Your task to perform on an android device: Search for "rayovac triple a" on amazon, select the first entry, add it to the cart, then select checkout. Image 0: 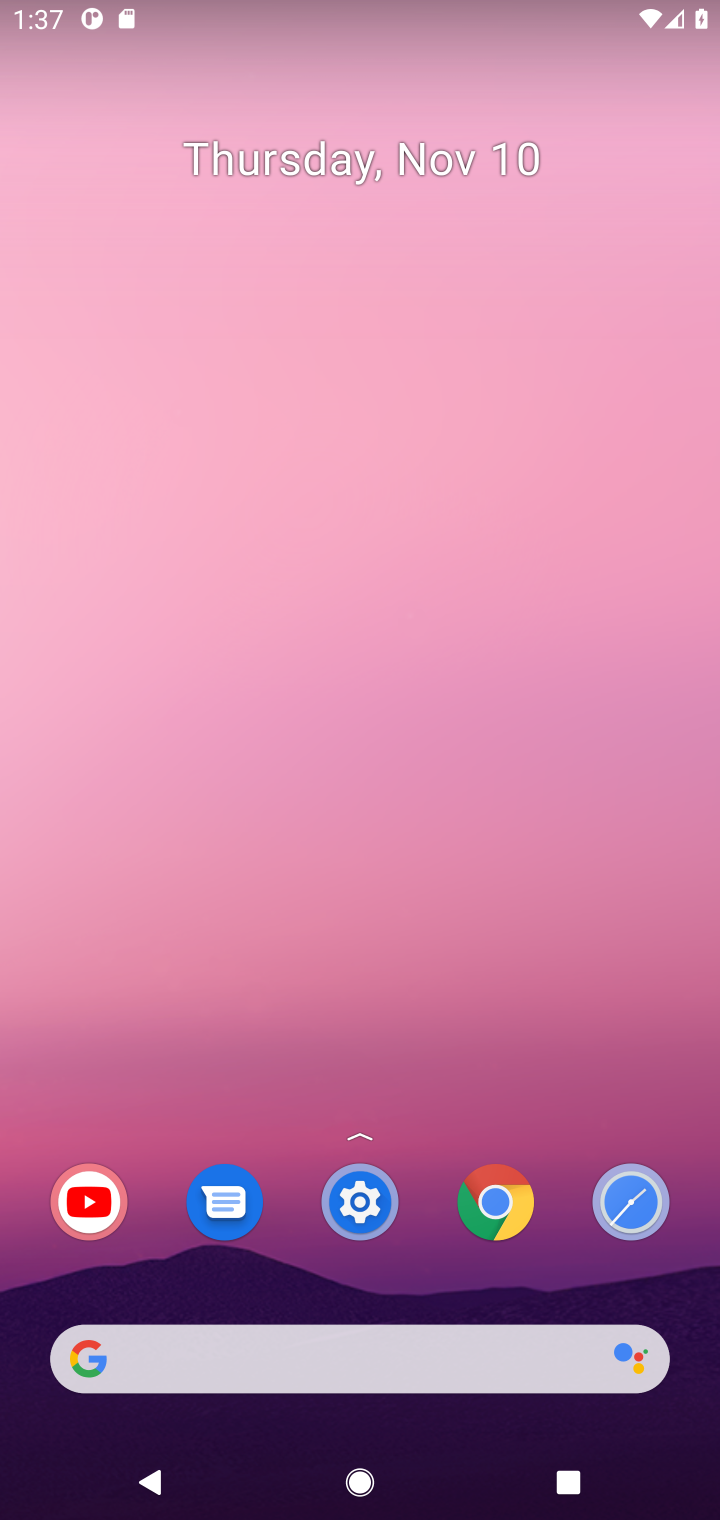
Step 0: click (497, 1211)
Your task to perform on an android device: Search for "rayovac triple a" on amazon, select the first entry, add it to the cart, then select checkout. Image 1: 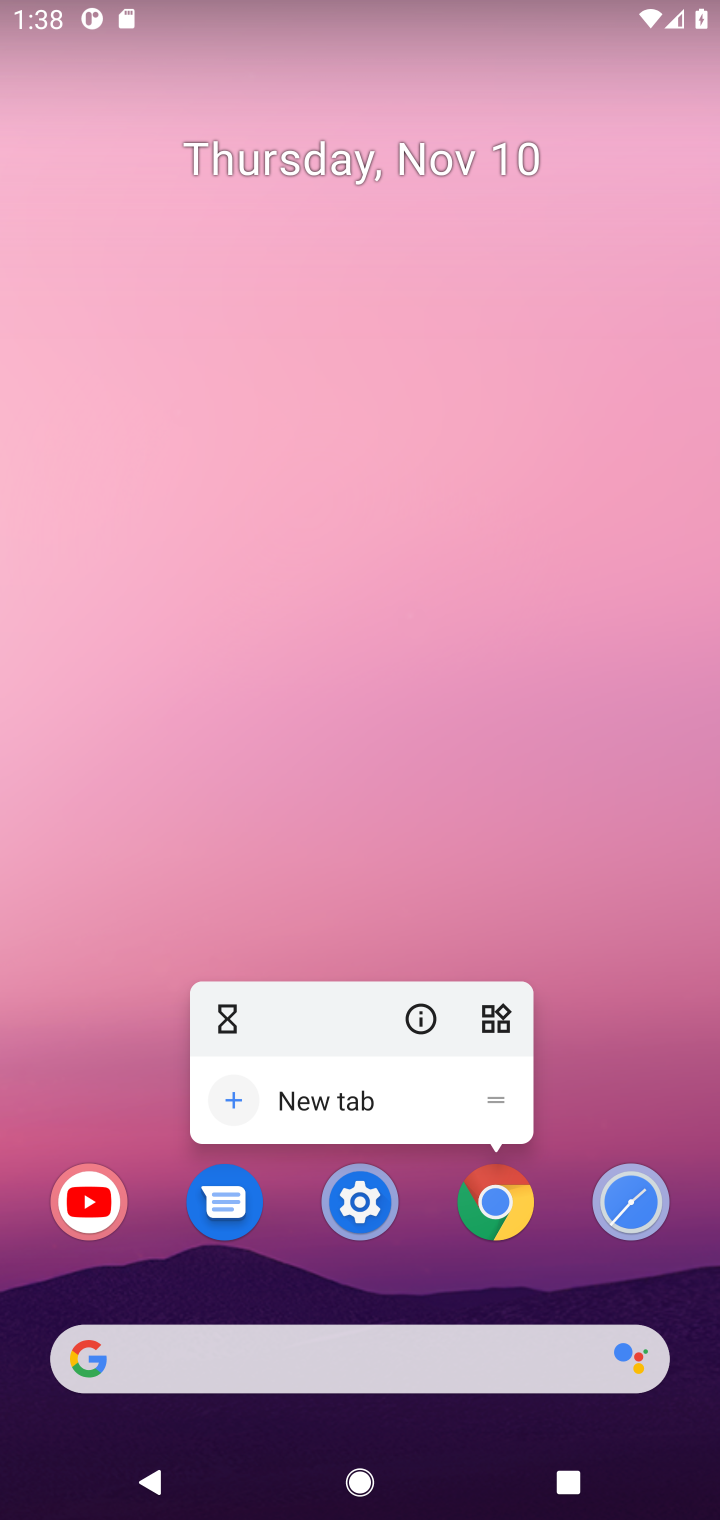
Step 1: click (490, 1228)
Your task to perform on an android device: Search for "rayovac triple a" on amazon, select the first entry, add it to the cart, then select checkout. Image 2: 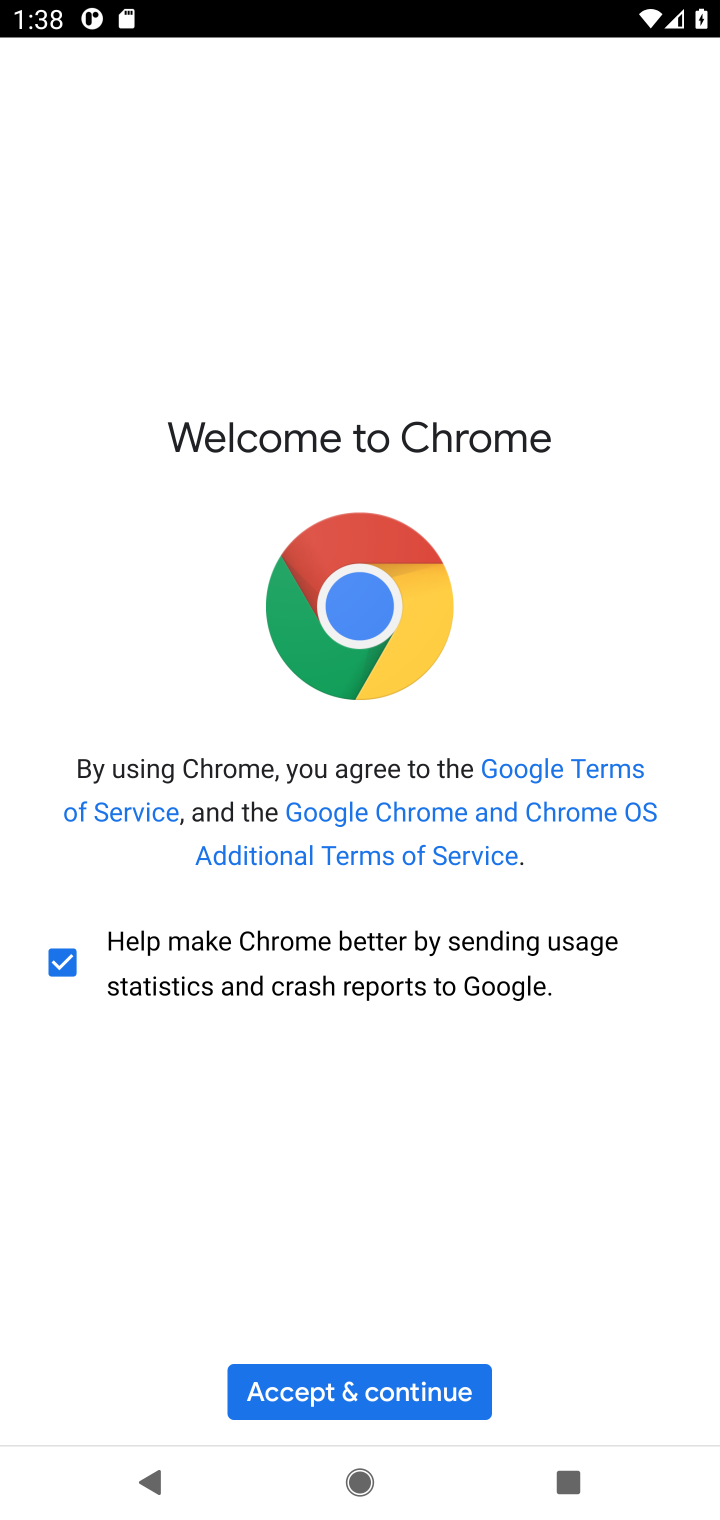
Step 2: click (430, 1377)
Your task to perform on an android device: Search for "rayovac triple a" on amazon, select the first entry, add it to the cart, then select checkout. Image 3: 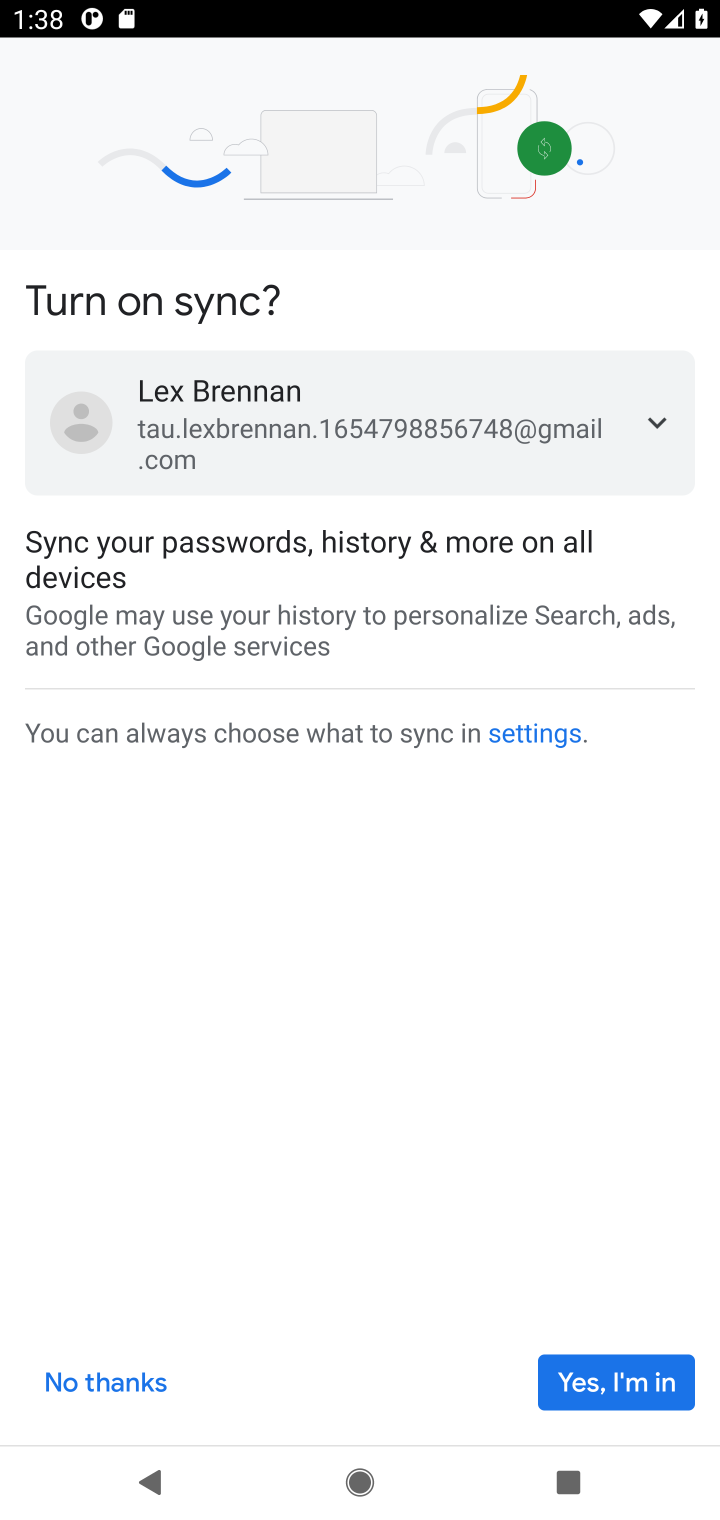
Step 3: click (603, 1377)
Your task to perform on an android device: Search for "rayovac triple a" on amazon, select the first entry, add it to the cart, then select checkout. Image 4: 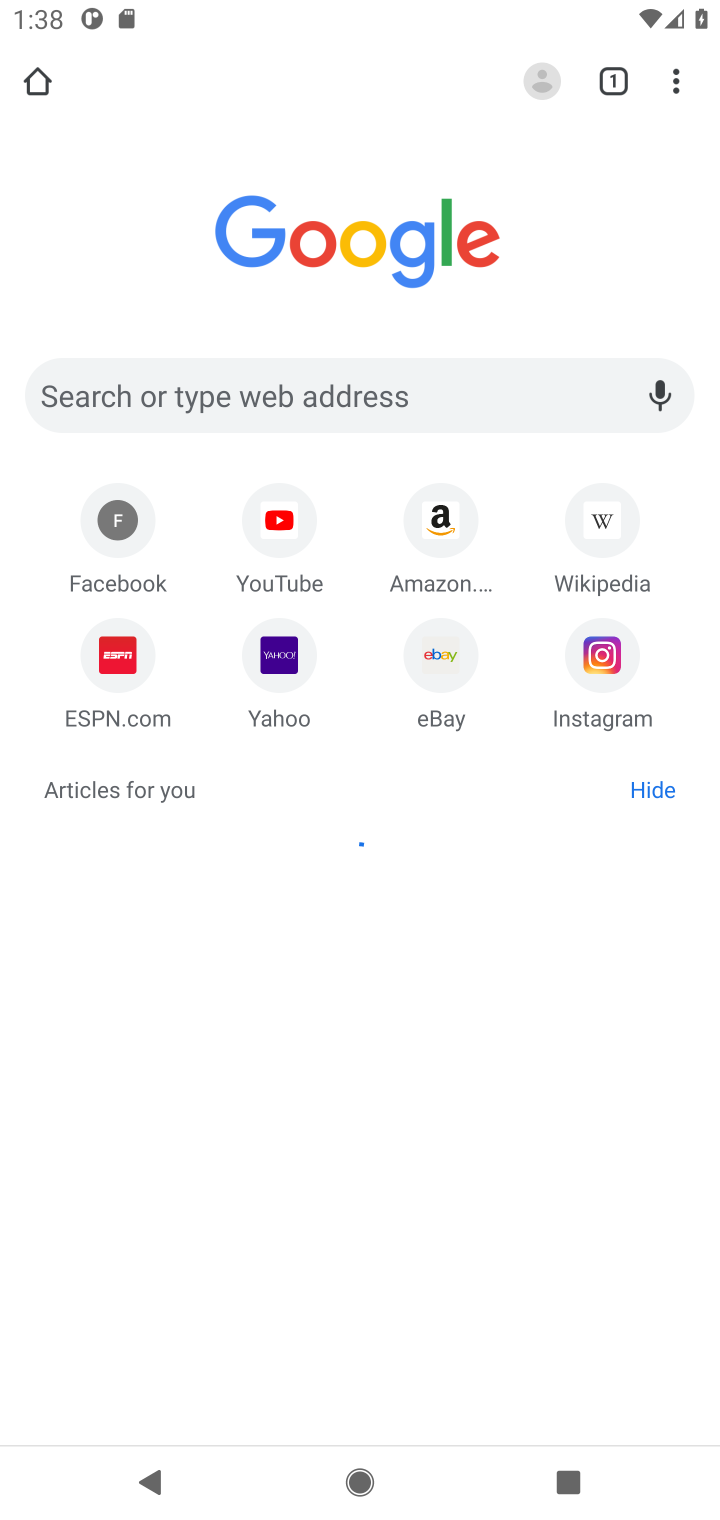
Step 4: click (342, 391)
Your task to perform on an android device: Search for "rayovac triple a" on amazon, select the first entry, add it to the cart, then select checkout. Image 5: 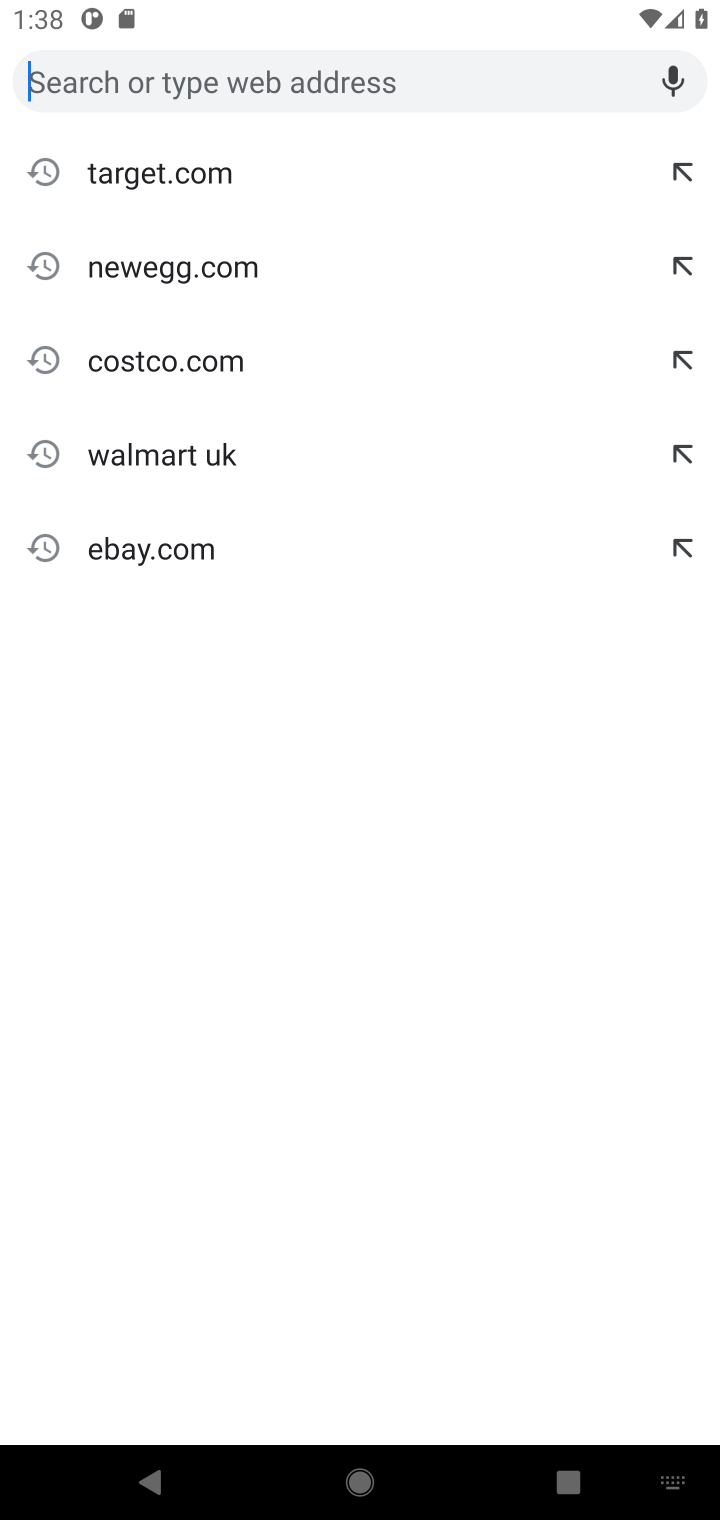
Step 5: type "amazon"
Your task to perform on an android device: Search for "rayovac triple a" on amazon, select the first entry, add it to the cart, then select checkout. Image 6: 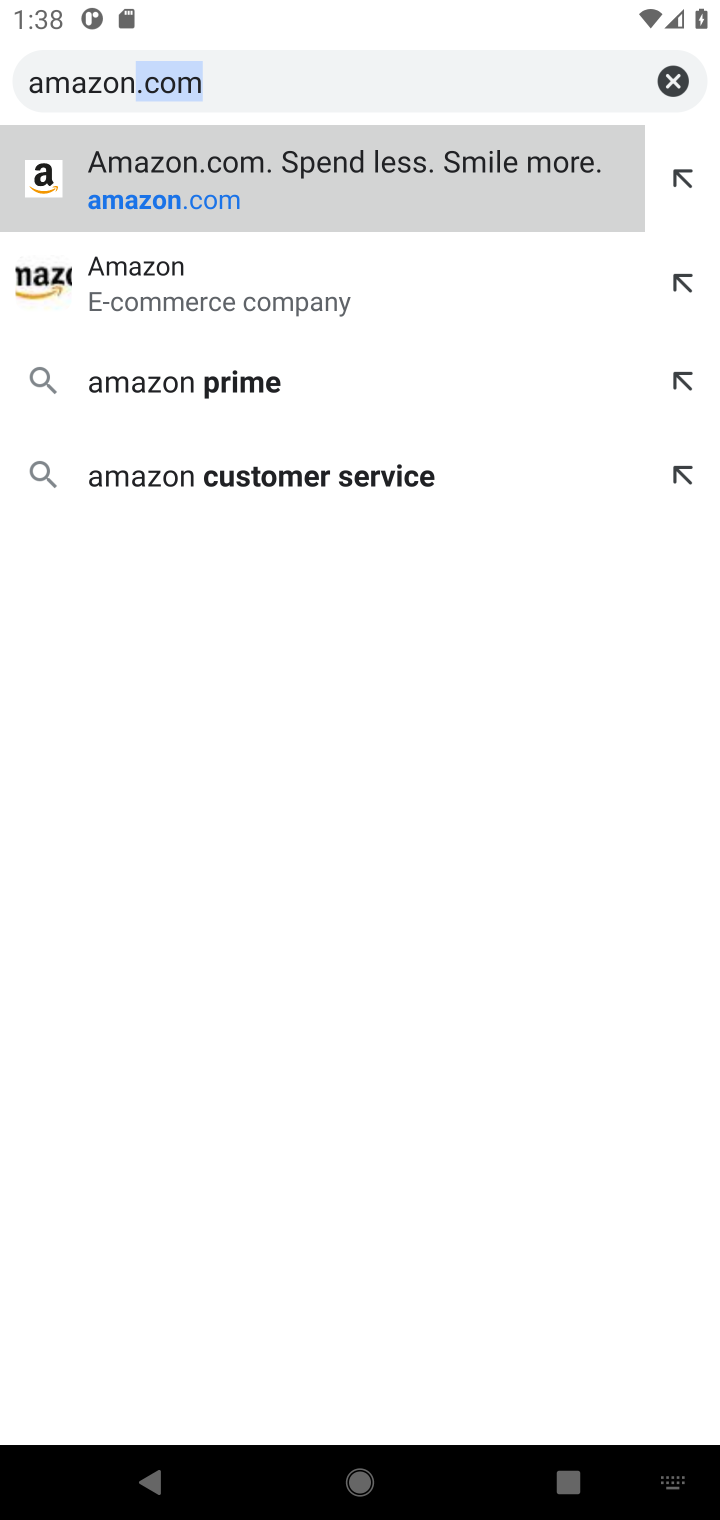
Step 6: press enter
Your task to perform on an android device: Search for "rayovac triple a" on amazon, select the first entry, add it to the cart, then select checkout. Image 7: 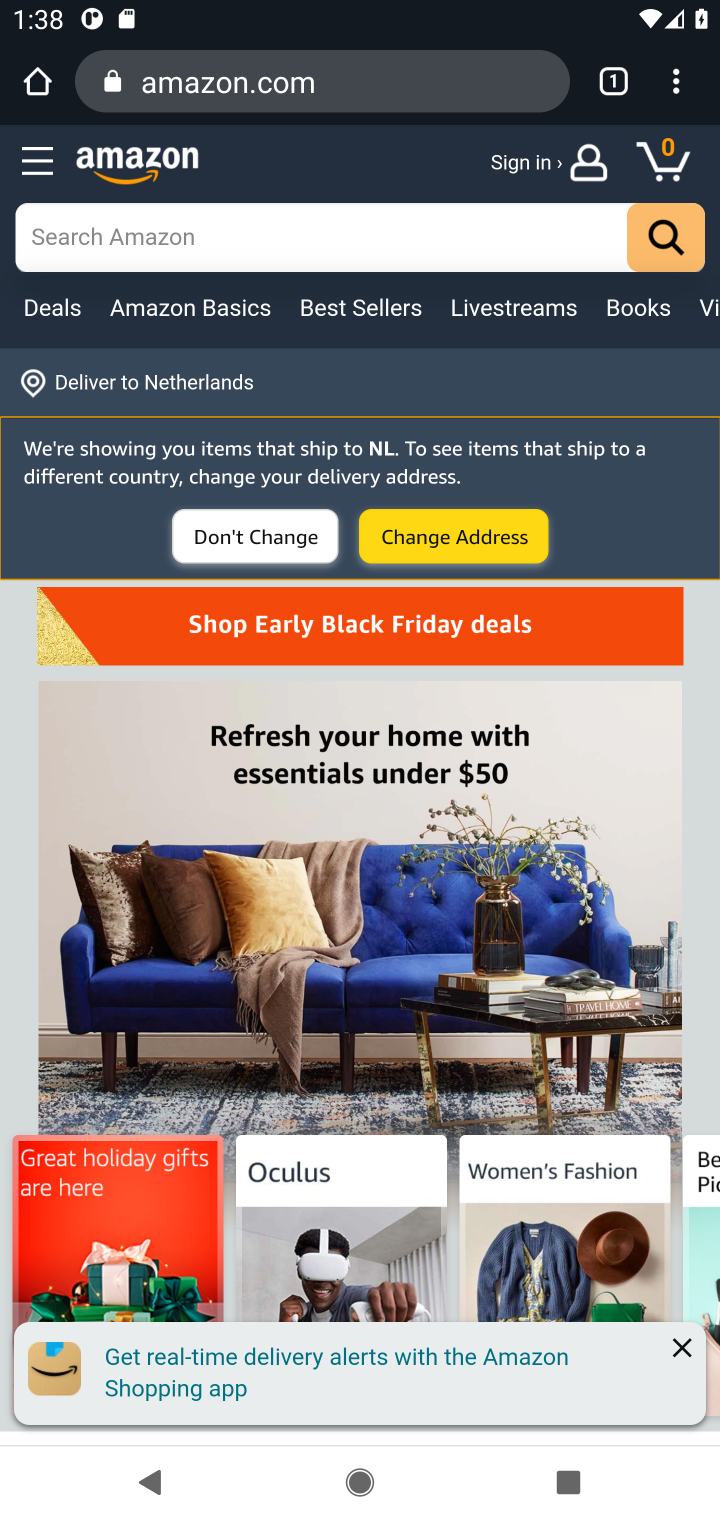
Step 7: click (186, 233)
Your task to perform on an android device: Search for "rayovac triple a" on amazon, select the first entry, add it to the cart, then select checkout. Image 8: 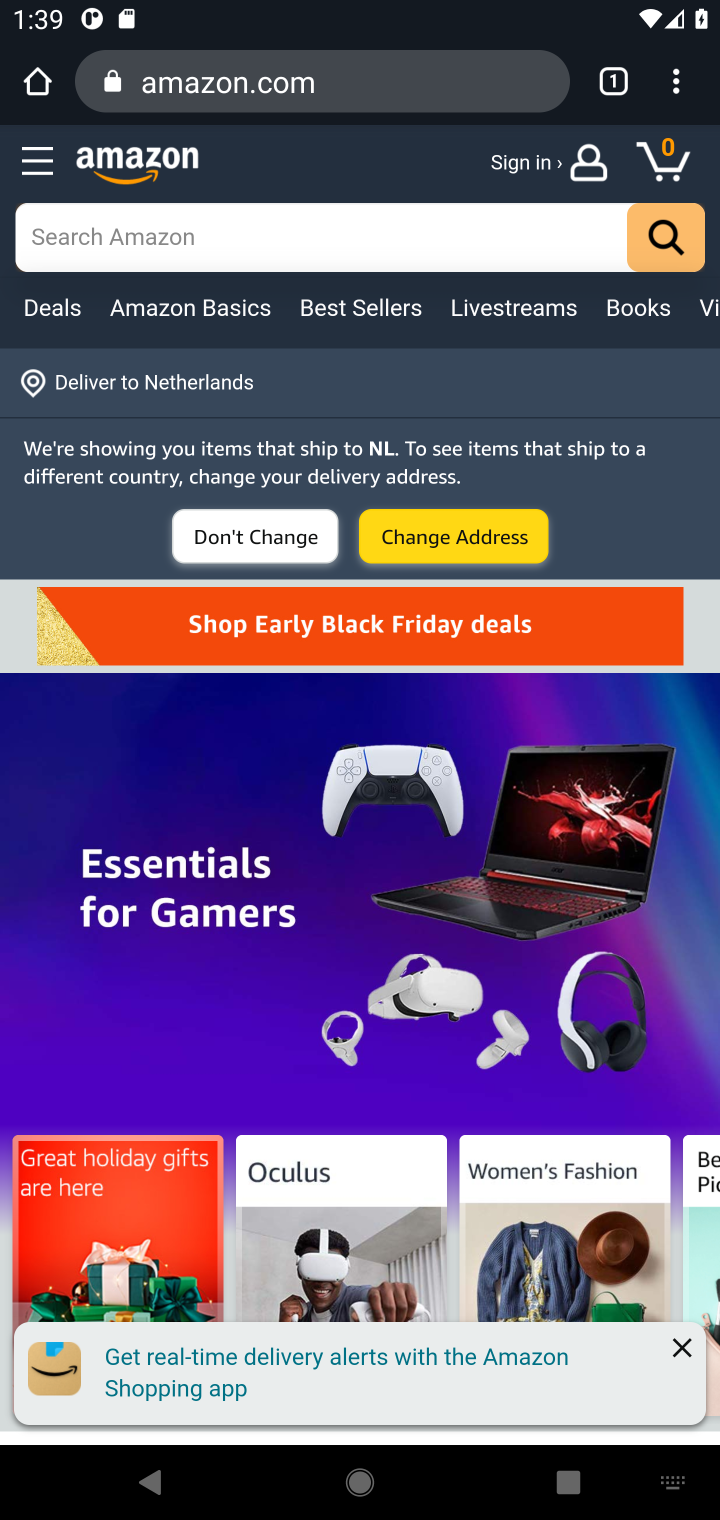
Step 8: type "rayovac triple a"
Your task to perform on an android device: Search for "rayovac triple a" on amazon, select the first entry, add it to the cart, then select checkout. Image 9: 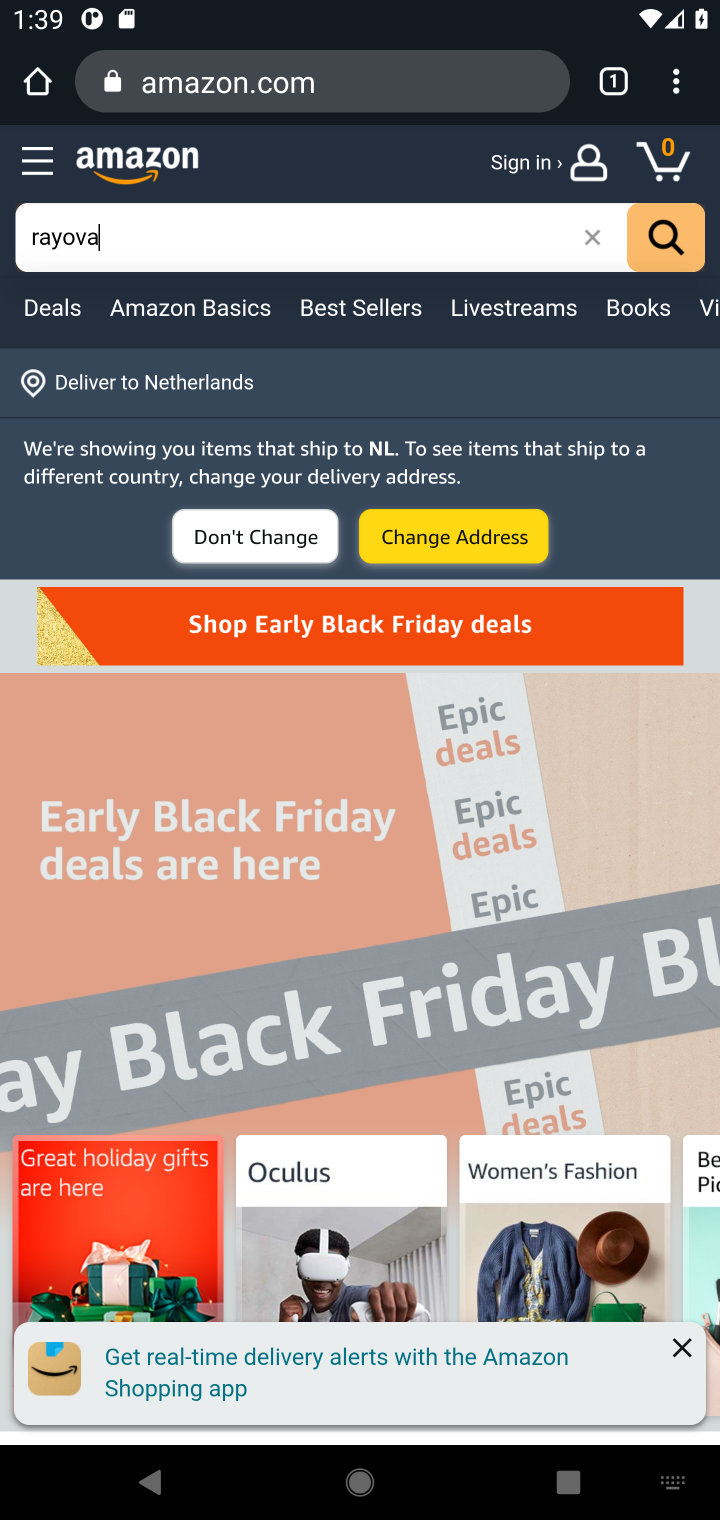
Step 9: press enter
Your task to perform on an android device: Search for "rayovac triple a" on amazon, select the first entry, add it to the cart, then select checkout. Image 10: 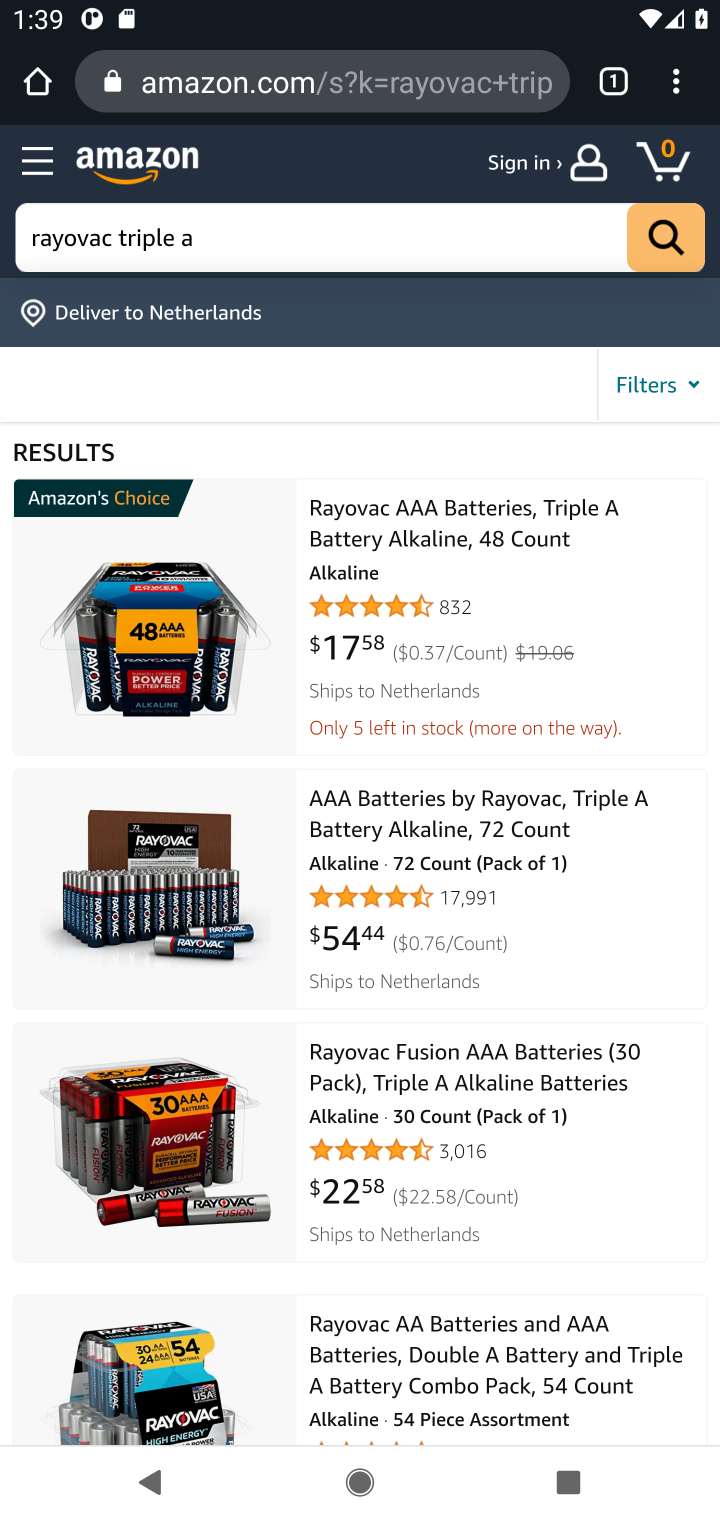
Step 10: click (418, 552)
Your task to perform on an android device: Search for "rayovac triple a" on amazon, select the first entry, add it to the cart, then select checkout. Image 11: 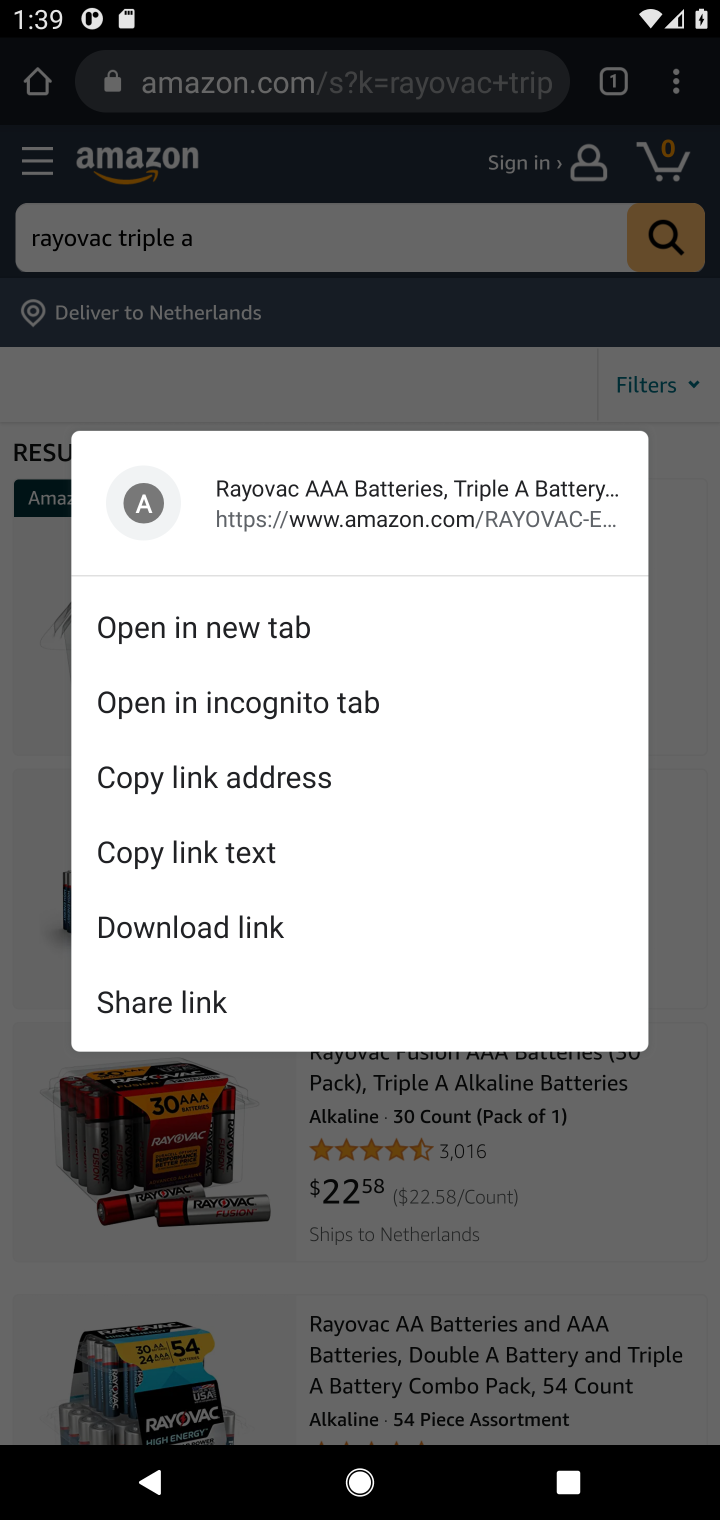
Step 11: click (694, 617)
Your task to perform on an android device: Search for "rayovac triple a" on amazon, select the first entry, add it to the cart, then select checkout. Image 12: 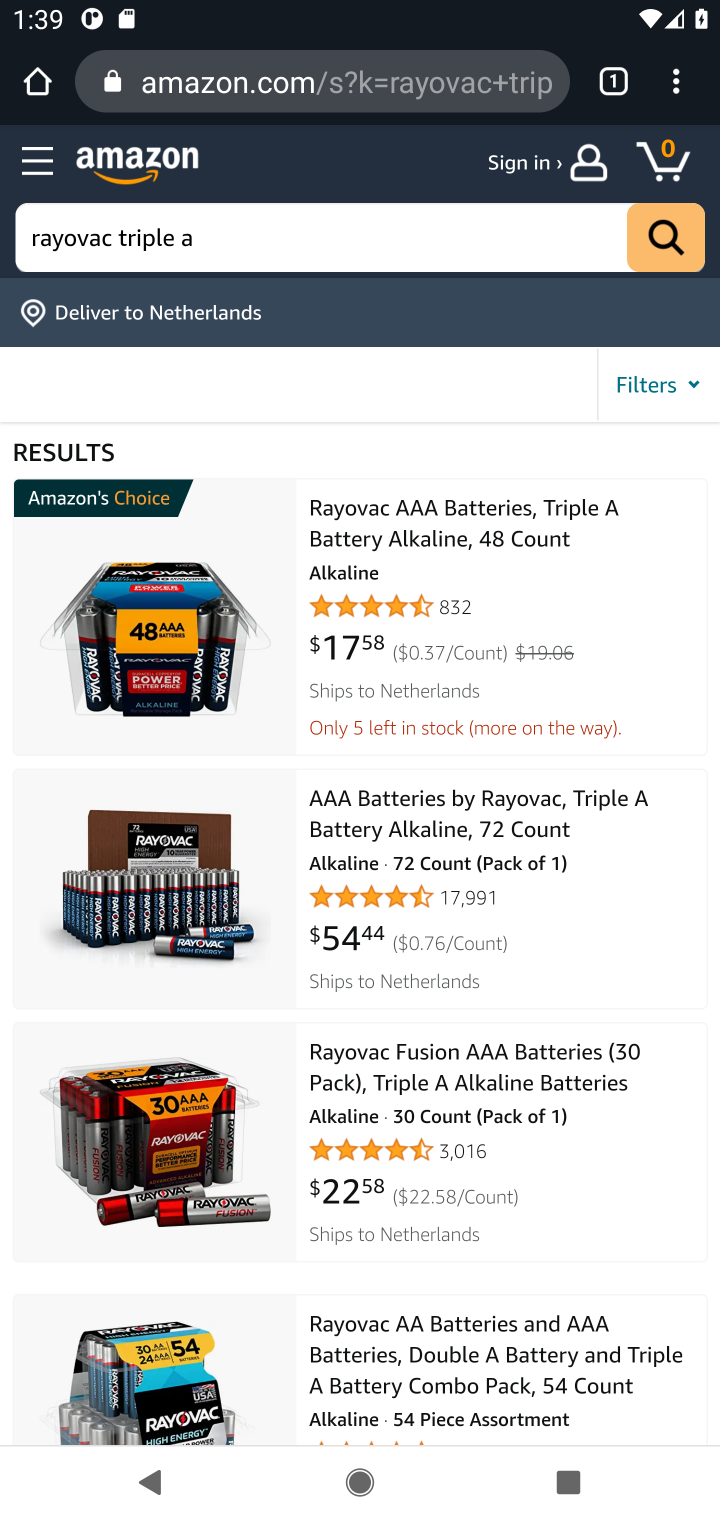
Step 12: click (389, 530)
Your task to perform on an android device: Search for "rayovac triple a" on amazon, select the first entry, add it to the cart, then select checkout. Image 13: 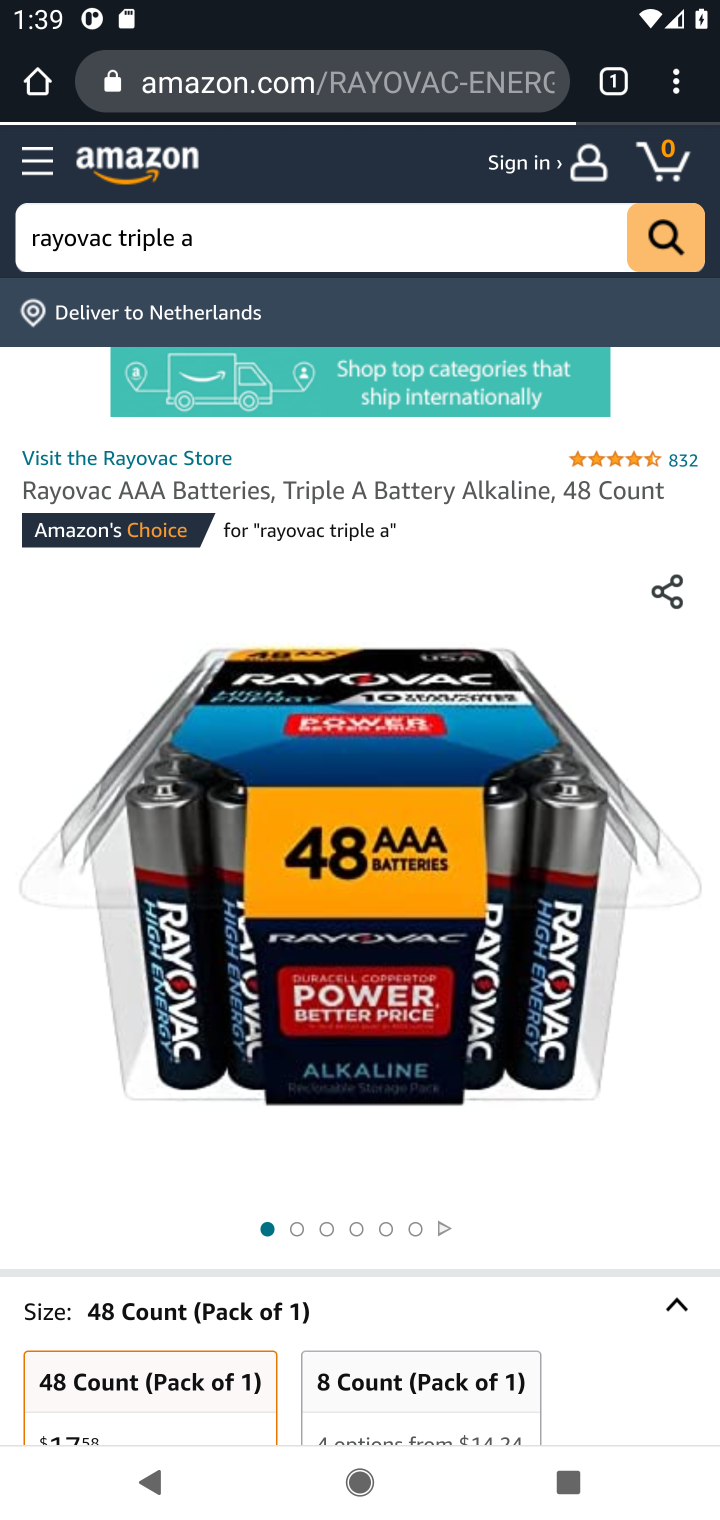
Step 13: drag from (514, 1049) to (694, 591)
Your task to perform on an android device: Search for "rayovac triple a" on amazon, select the first entry, add it to the cart, then select checkout. Image 14: 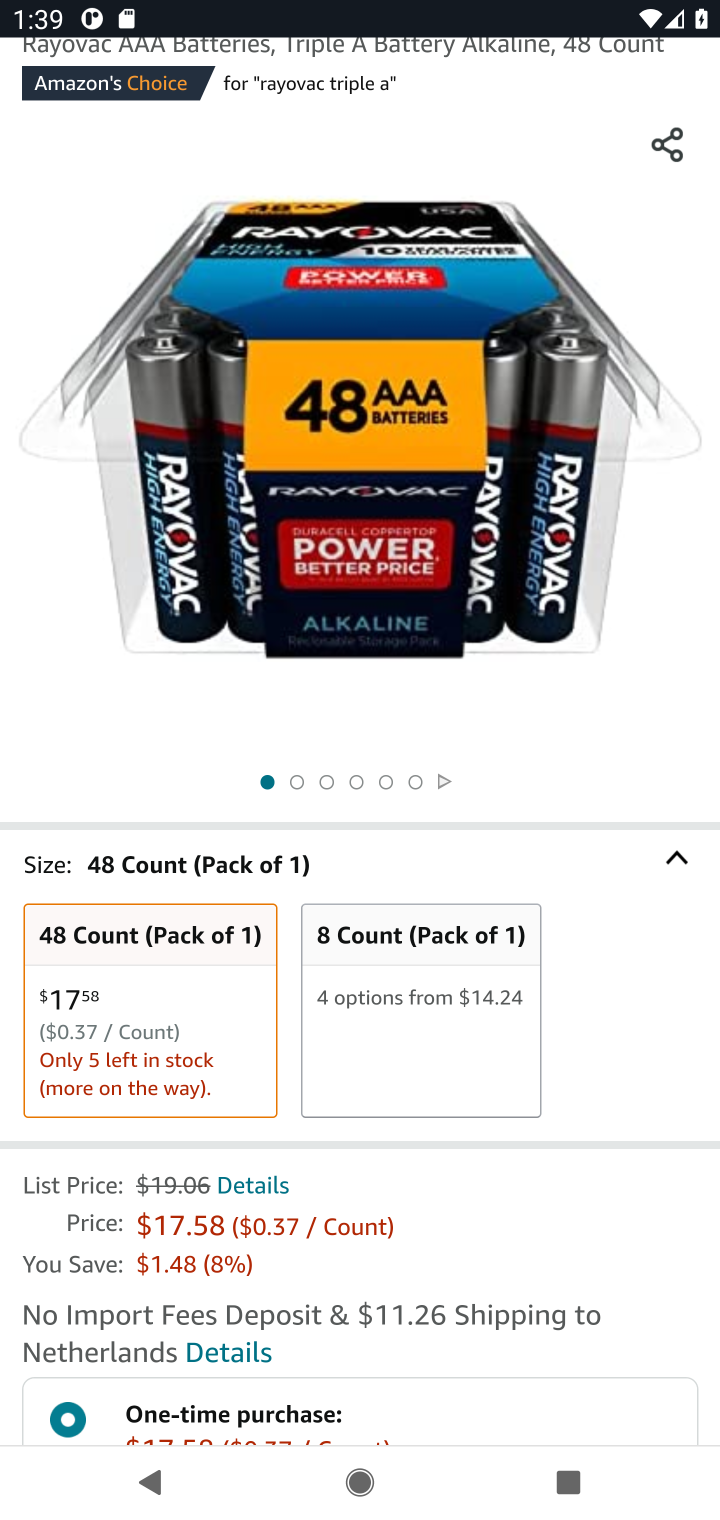
Step 14: drag from (402, 1271) to (640, 547)
Your task to perform on an android device: Search for "rayovac triple a" on amazon, select the first entry, add it to the cart, then select checkout. Image 15: 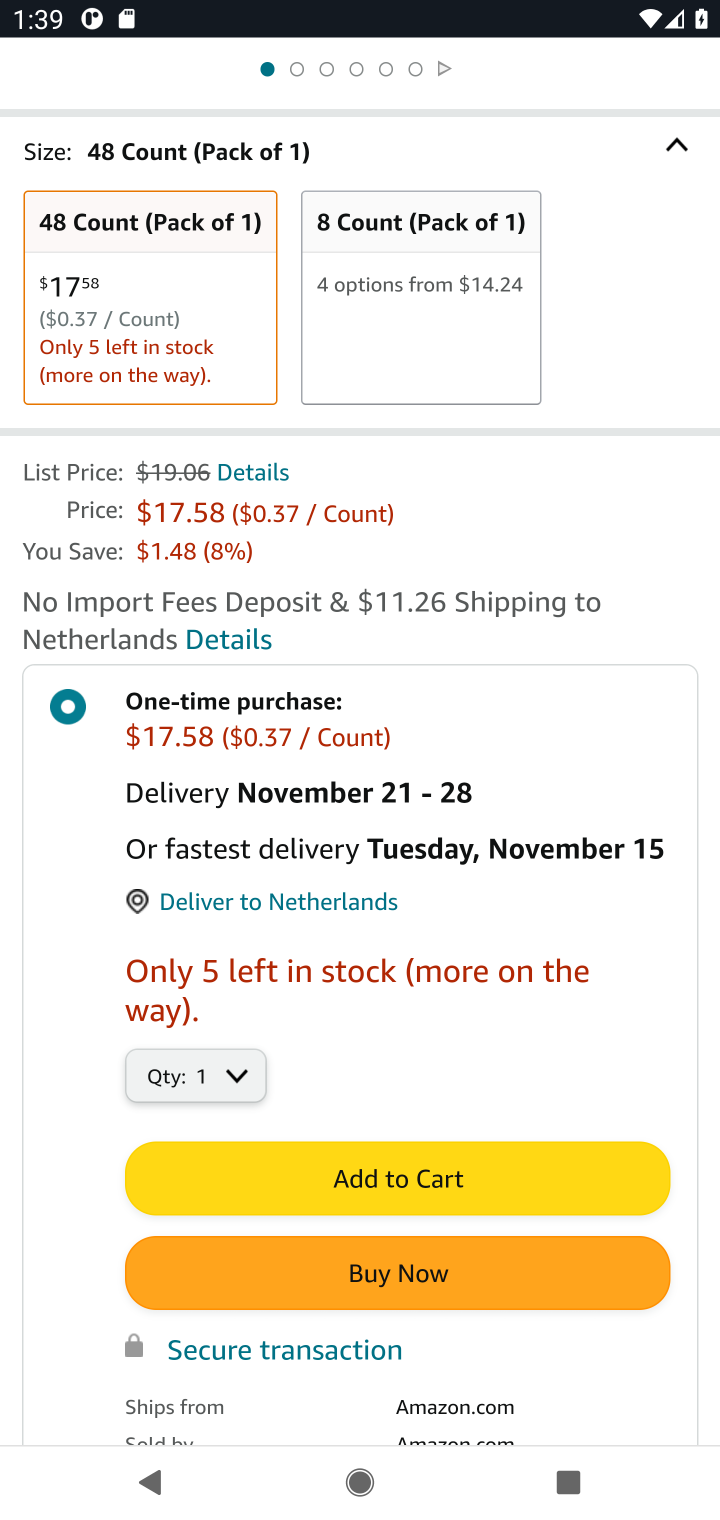
Step 15: click (380, 1176)
Your task to perform on an android device: Search for "rayovac triple a" on amazon, select the first entry, add it to the cart, then select checkout. Image 16: 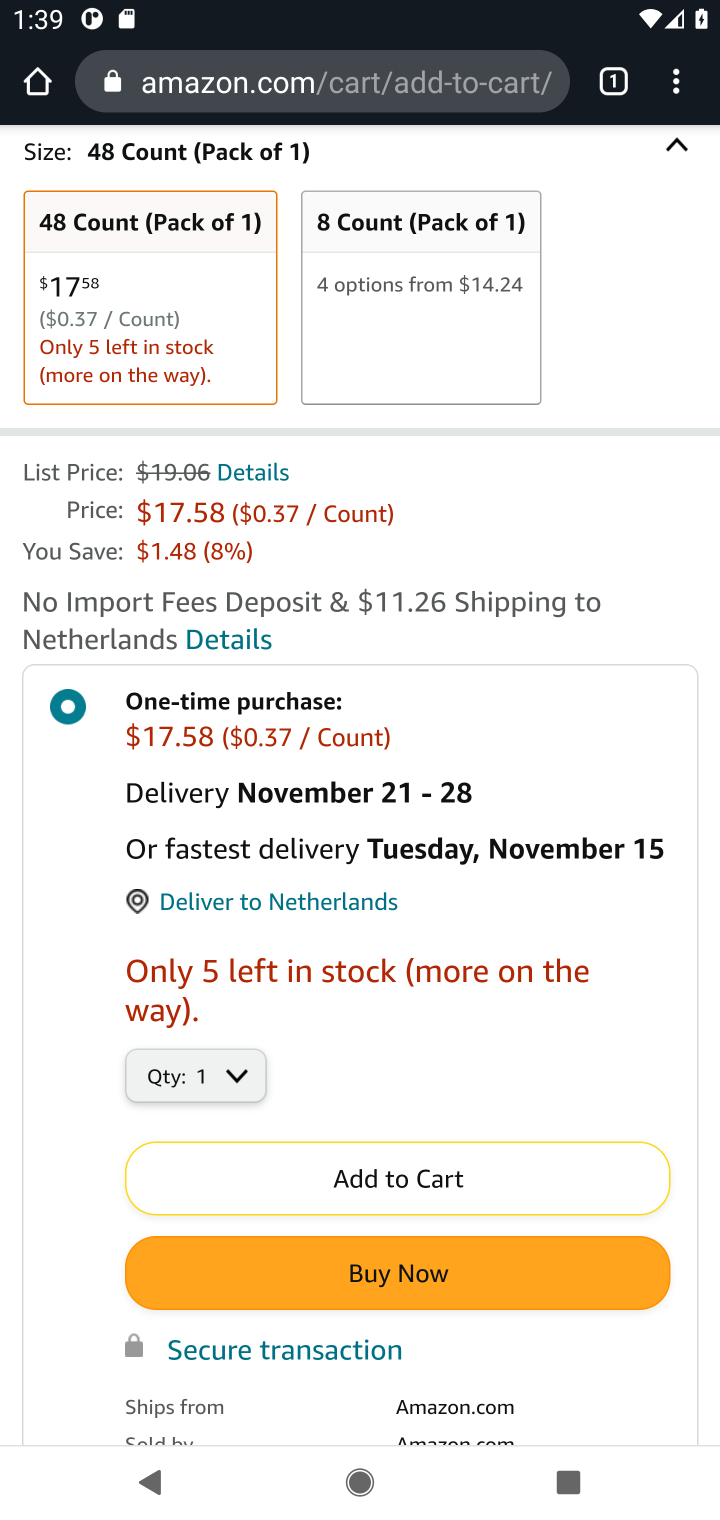
Step 16: click (422, 1173)
Your task to perform on an android device: Search for "rayovac triple a" on amazon, select the first entry, add it to the cart, then select checkout. Image 17: 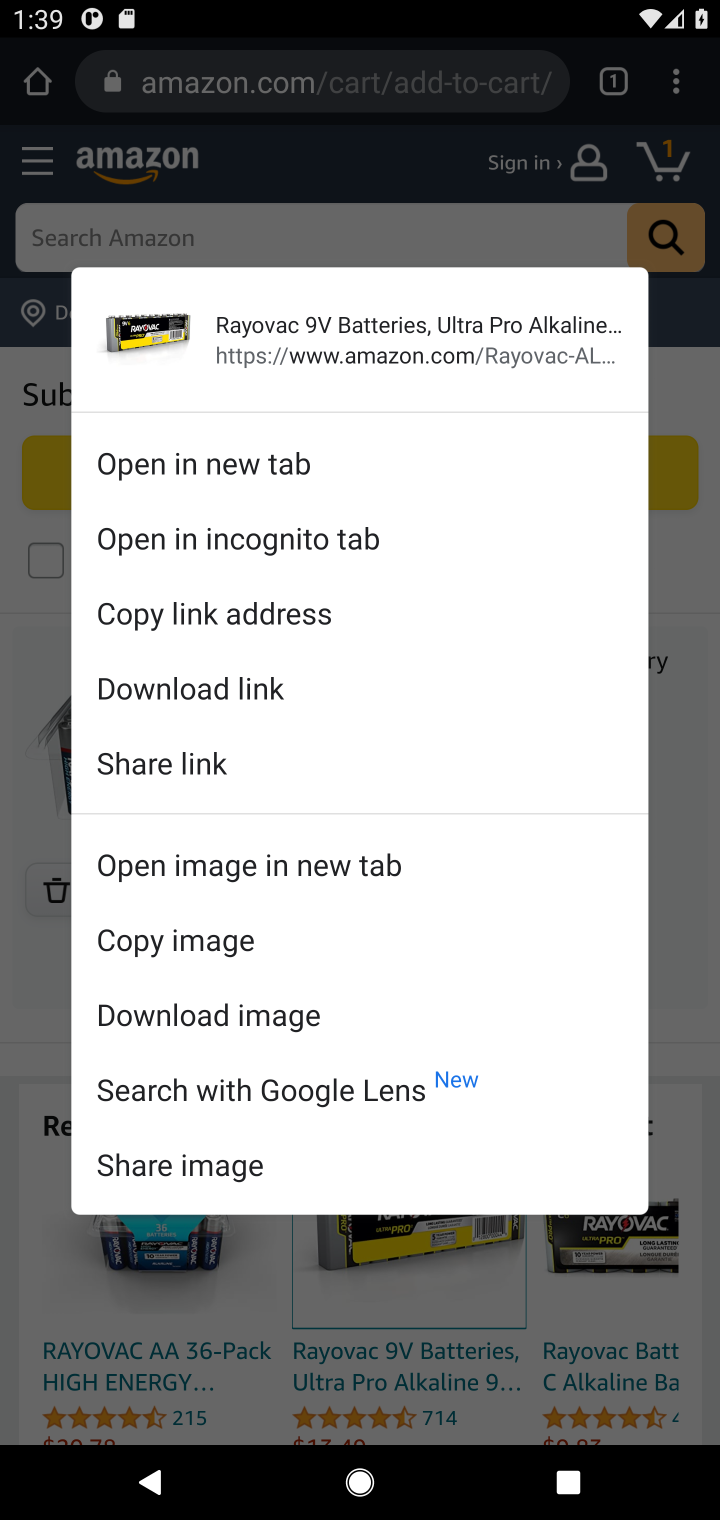
Step 17: click (666, 157)
Your task to perform on an android device: Search for "rayovac triple a" on amazon, select the first entry, add it to the cart, then select checkout. Image 18: 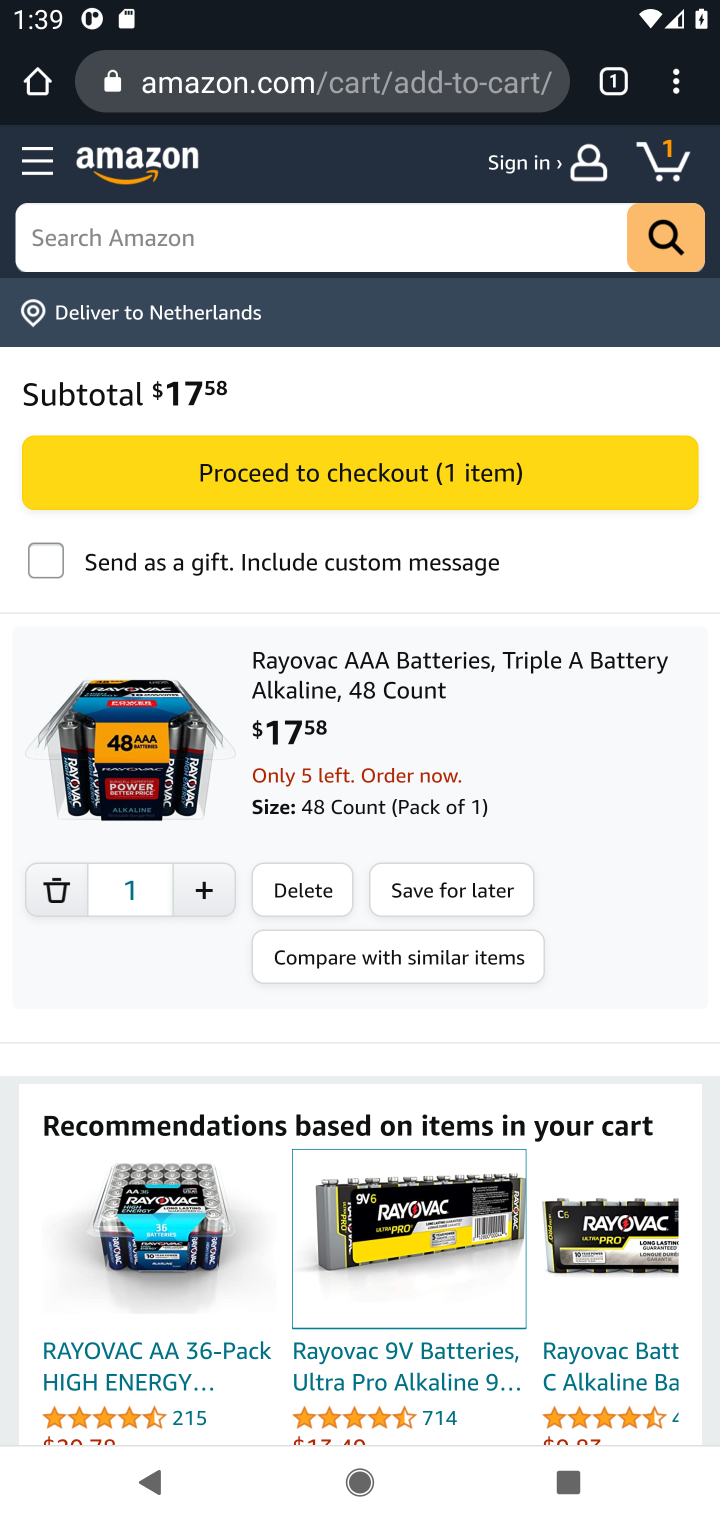
Step 18: click (666, 160)
Your task to perform on an android device: Search for "rayovac triple a" on amazon, select the first entry, add it to the cart, then select checkout. Image 19: 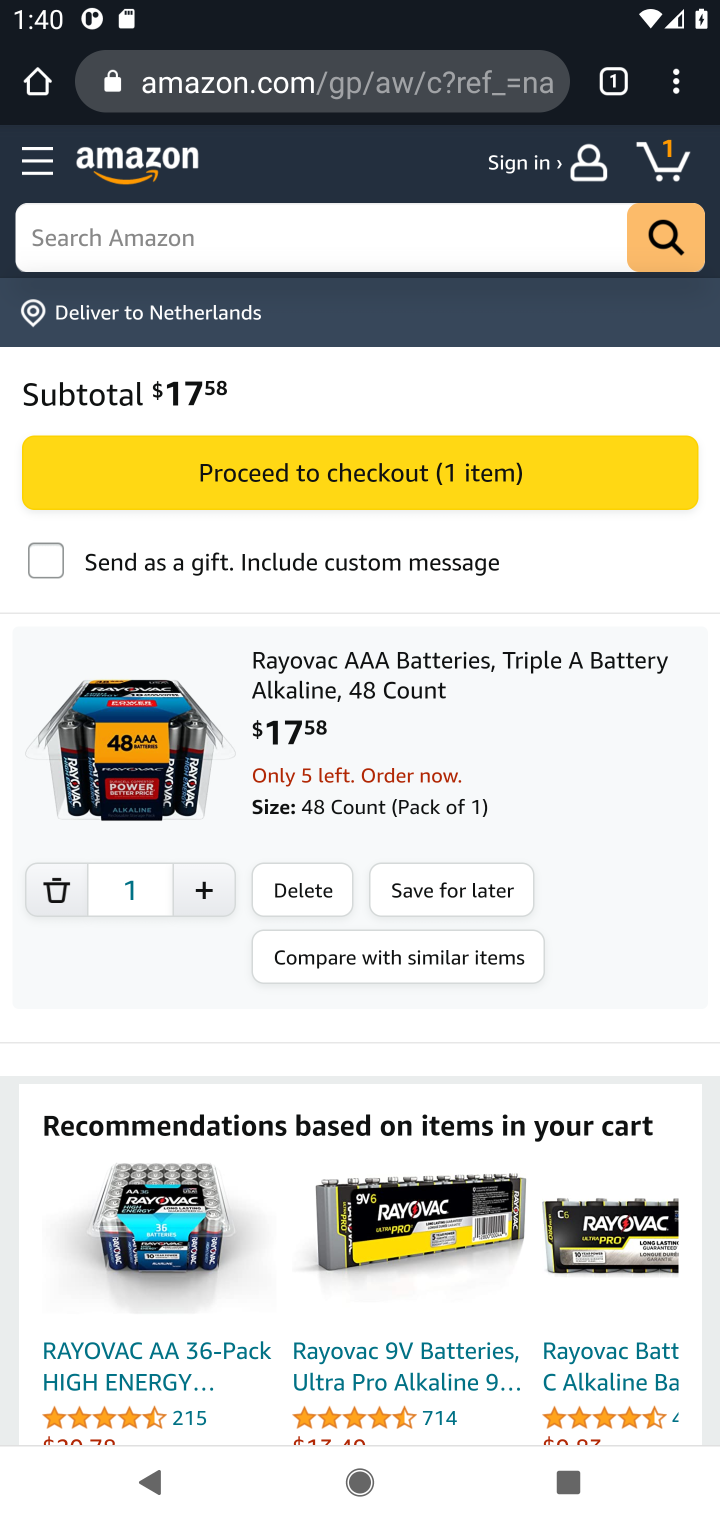
Step 19: click (656, 167)
Your task to perform on an android device: Search for "rayovac triple a" on amazon, select the first entry, add it to the cart, then select checkout. Image 20: 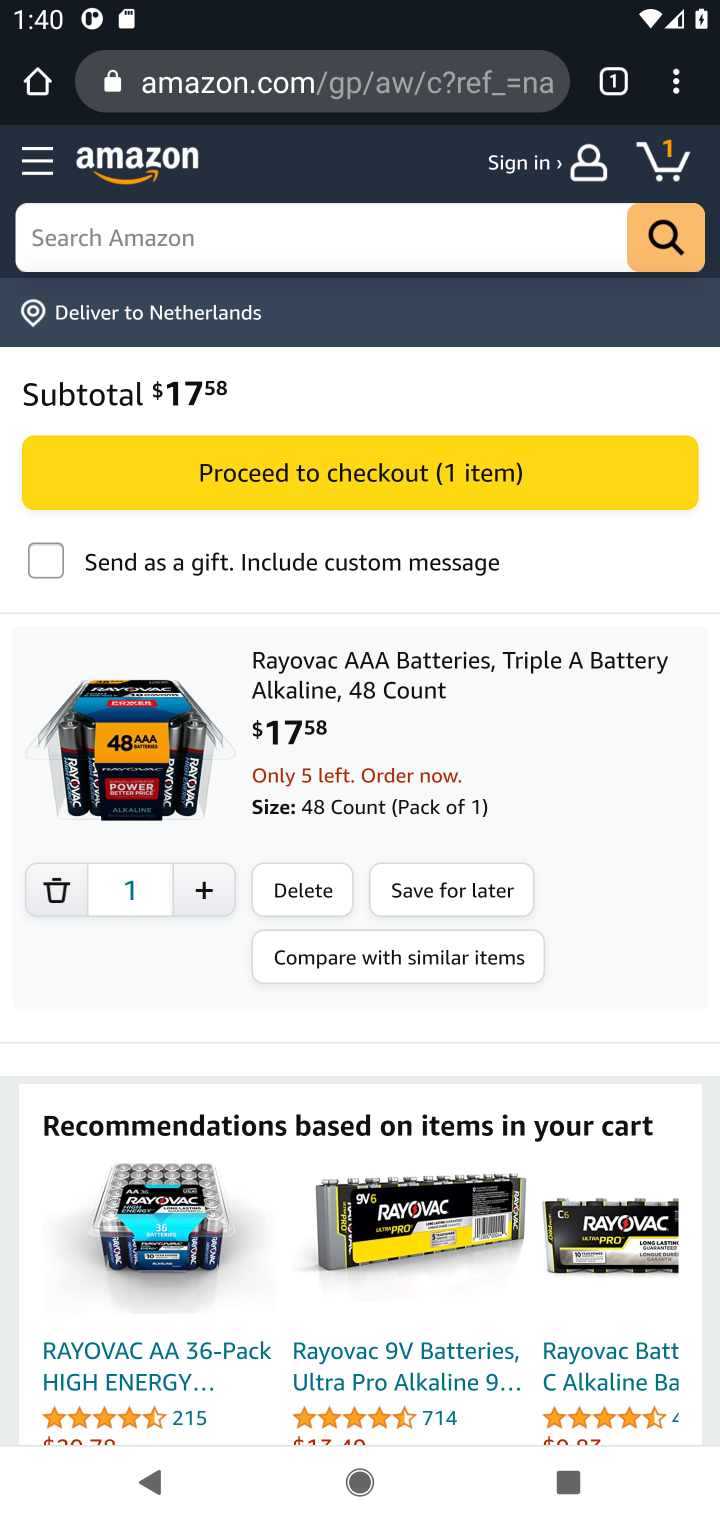
Step 20: drag from (355, 1025) to (496, 723)
Your task to perform on an android device: Search for "rayovac triple a" on amazon, select the first entry, add it to the cart, then select checkout. Image 21: 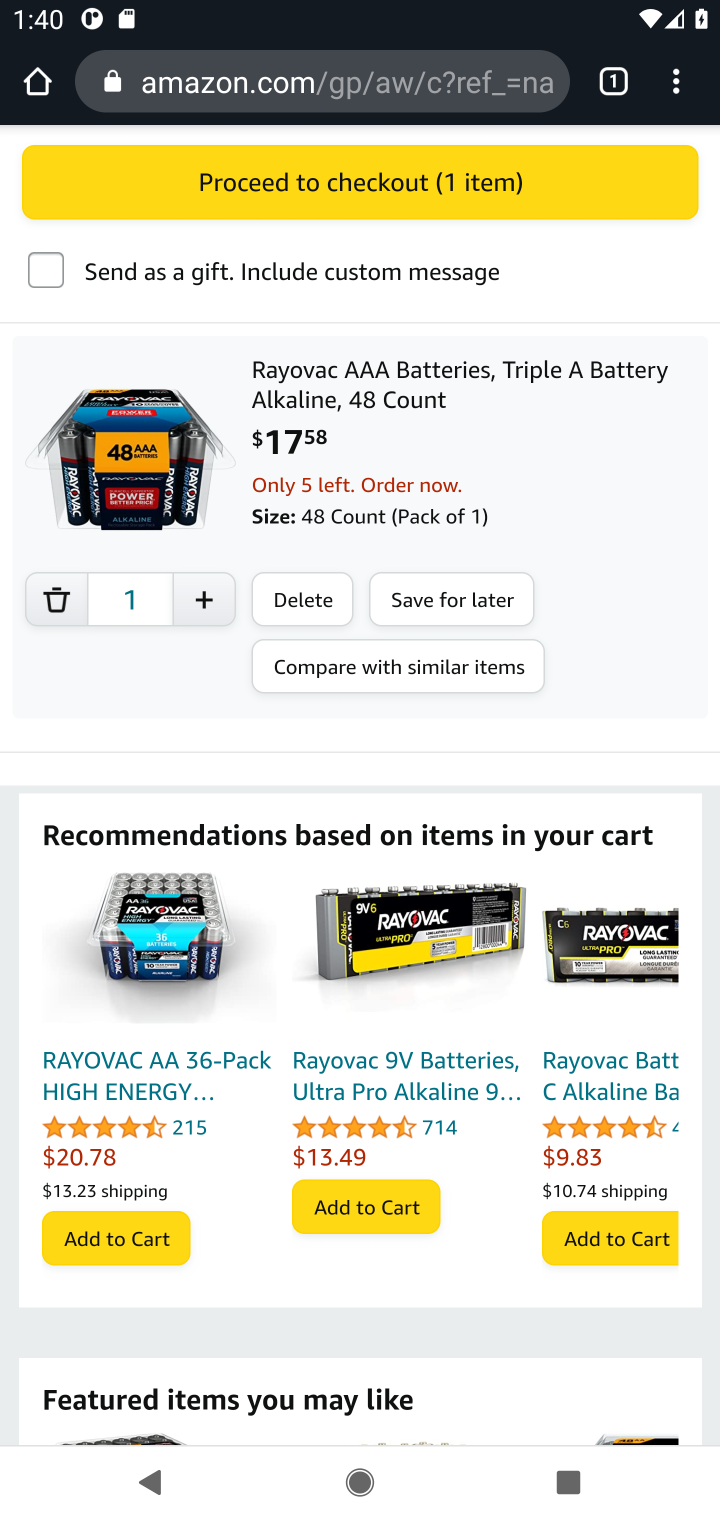
Step 21: click (397, 178)
Your task to perform on an android device: Search for "rayovac triple a" on amazon, select the first entry, add it to the cart, then select checkout. Image 22: 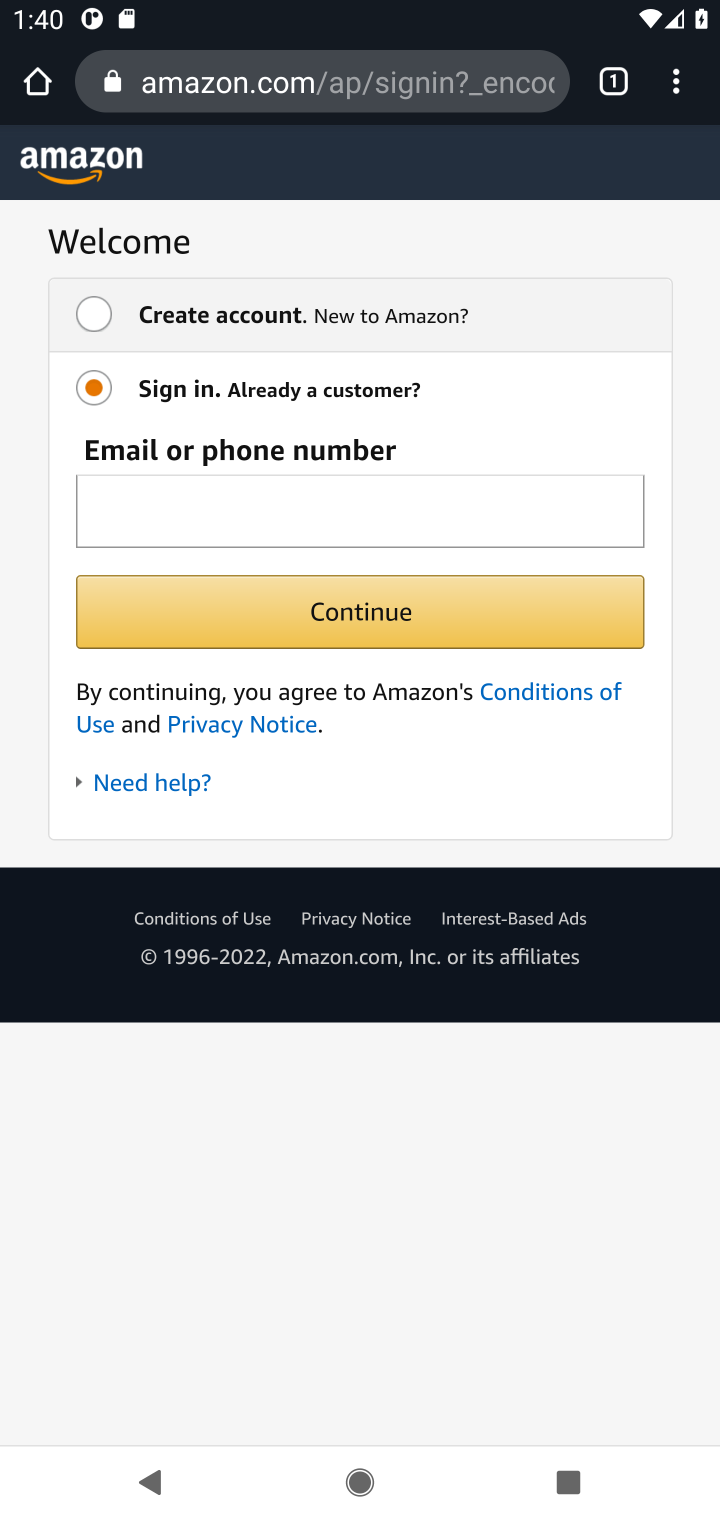
Step 22: task complete